Your task to perform on an android device: Open Android settings Image 0: 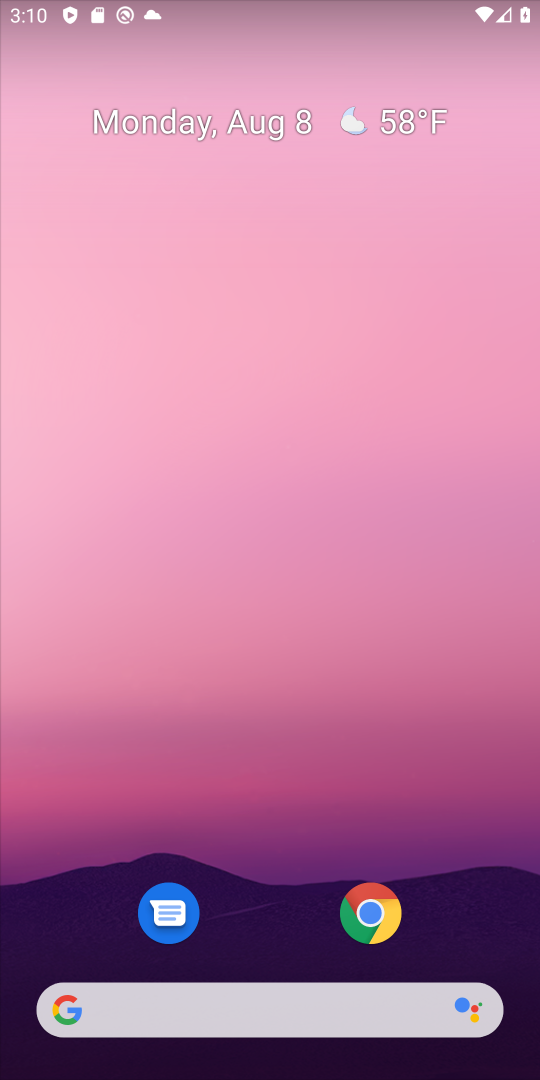
Step 0: press home button
Your task to perform on an android device: Open Android settings Image 1: 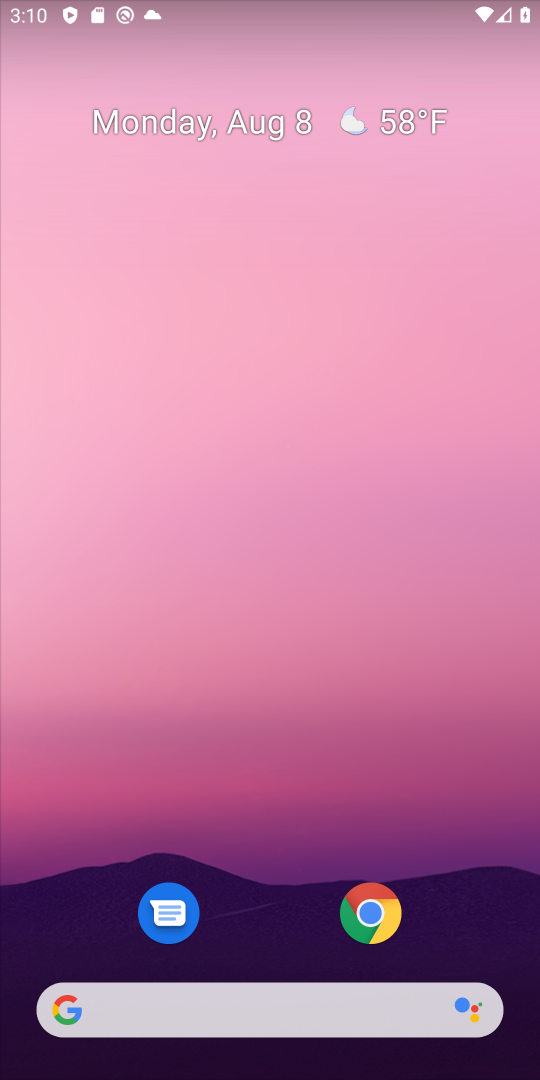
Step 1: drag from (277, 805) to (254, 89)
Your task to perform on an android device: Open Android settings Image 2: 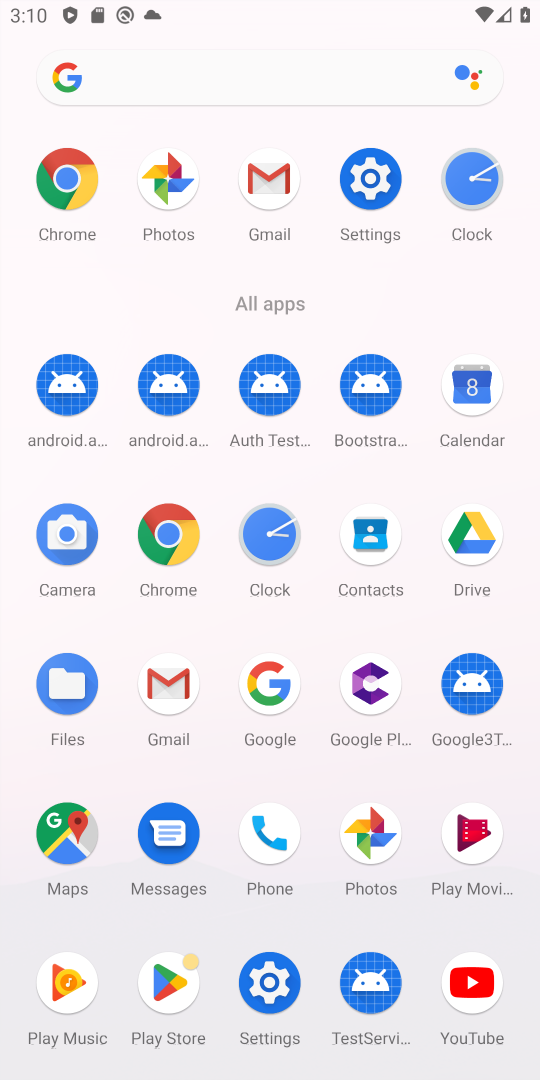
Step 2: click (370, 172)
Your task to perform on an android device: Open Android settings Image 3: 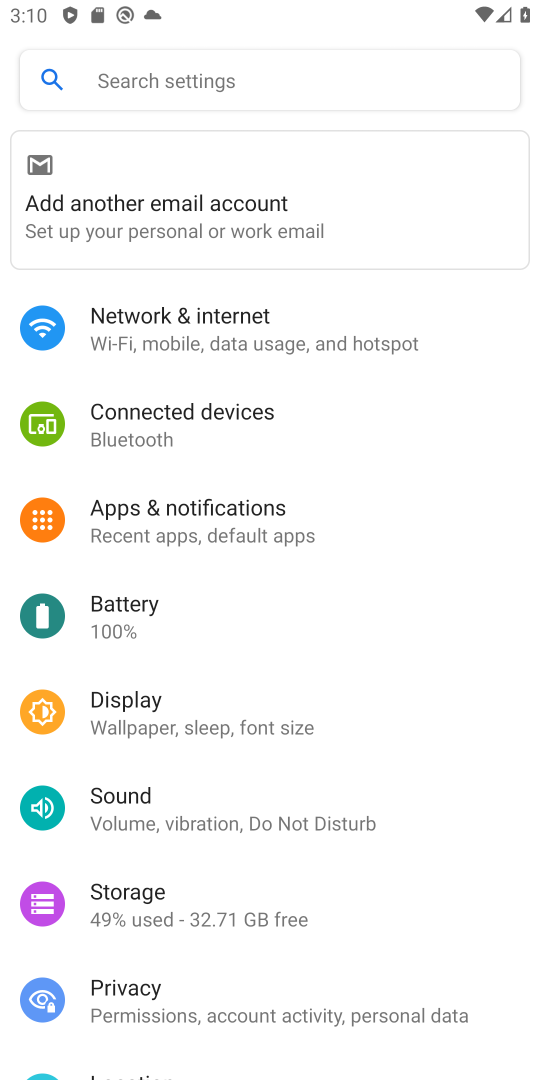
Step 3: drag from (442, 623) to (455, 515)
Your task to perform on an android device: Open Android settings Image 4: 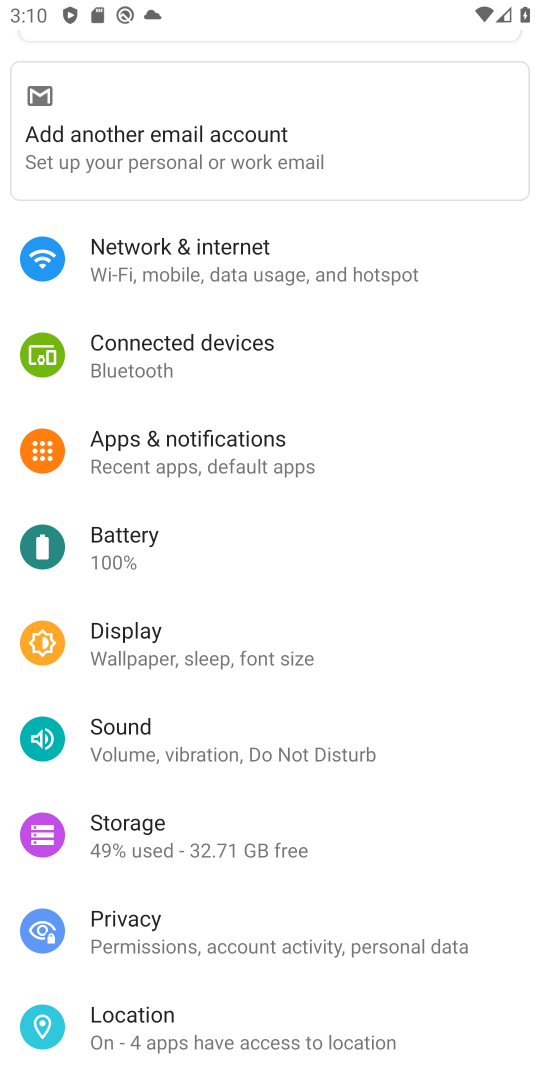
Step 4: drag from (470, 616) to (470, 467)
Your task to perform on an android device: Open Android settings Image 5: 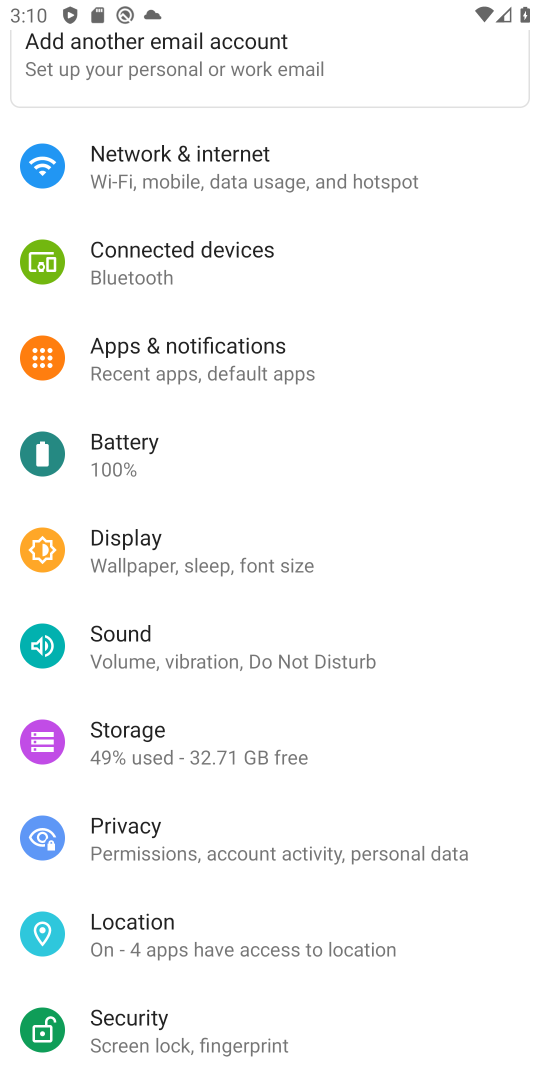
Step 5: drag from (475, 668) to (463, 512)
Your task to perform on an android device: Open Android settings Image 6: 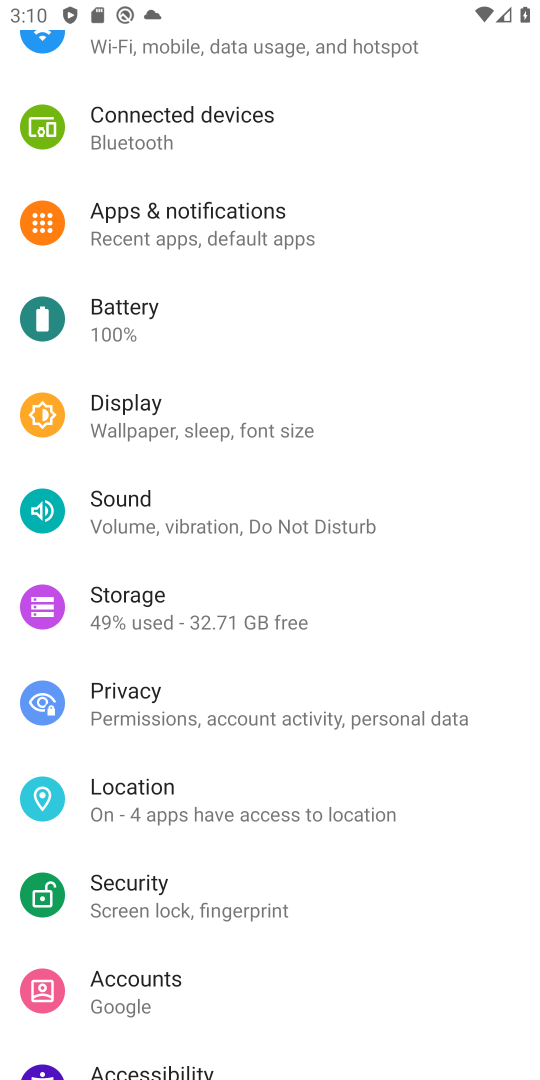
Step 6: drag from (437, 628) to (444, 493)
Your task to perform on an android device: Open Android settings Image 7: 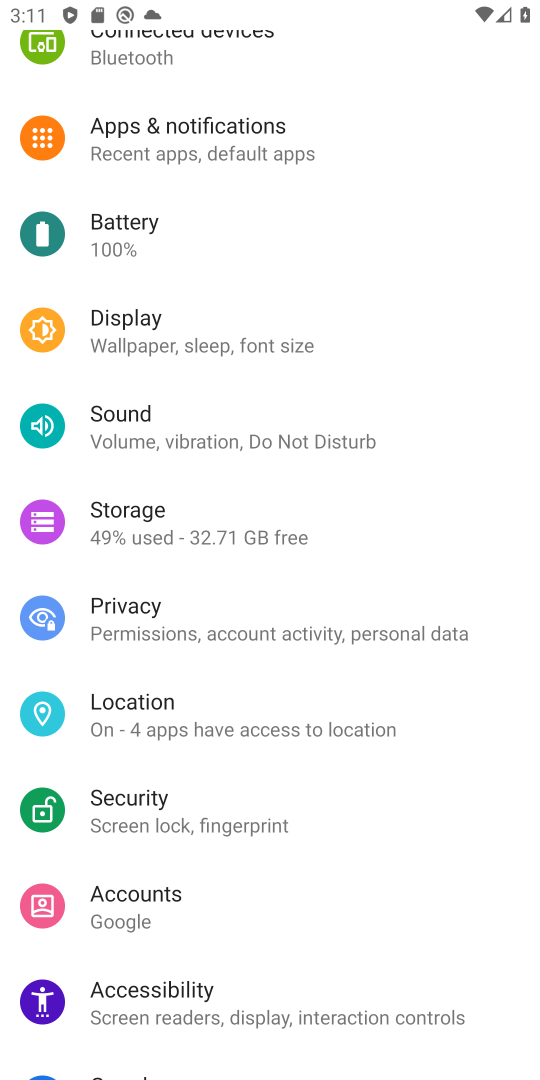
Step 7: drag from (430, 646) to (443, 522)
Your task to perform on an android device: Open Android settings Image 8: 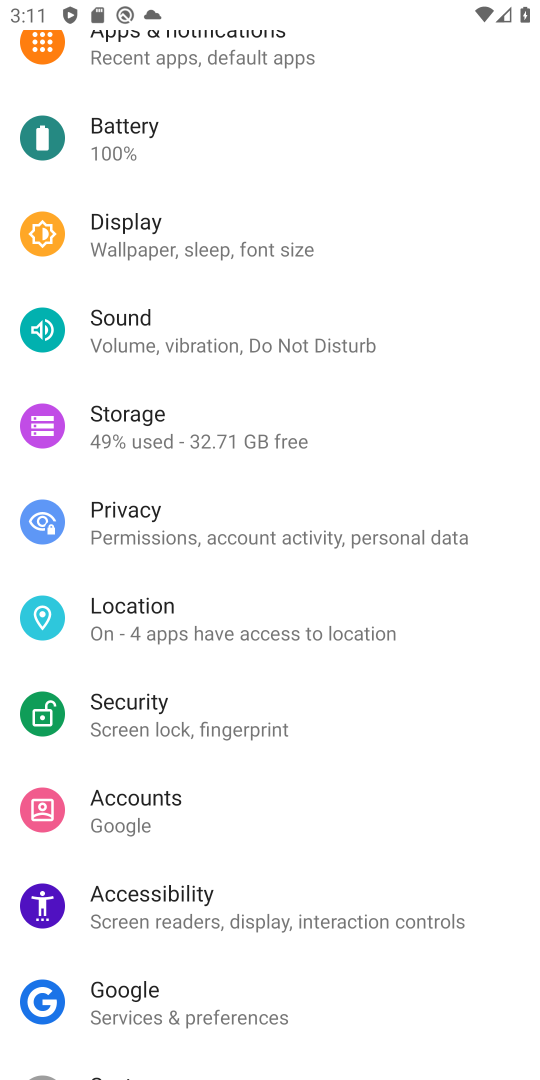
Step 8: drag from (436, 737) to (448, 406)
Your task to perform on an android device: Open Android settings Image 9: 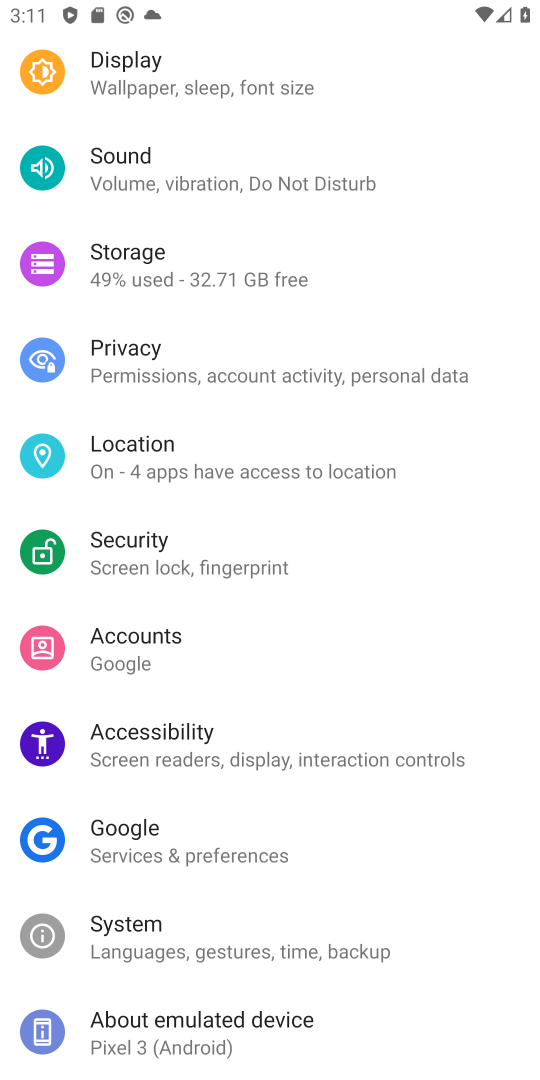
Step 9: drag from (435, 699) to (455, 452)
Your task to perform on an android device: Open Android settings Image 10: 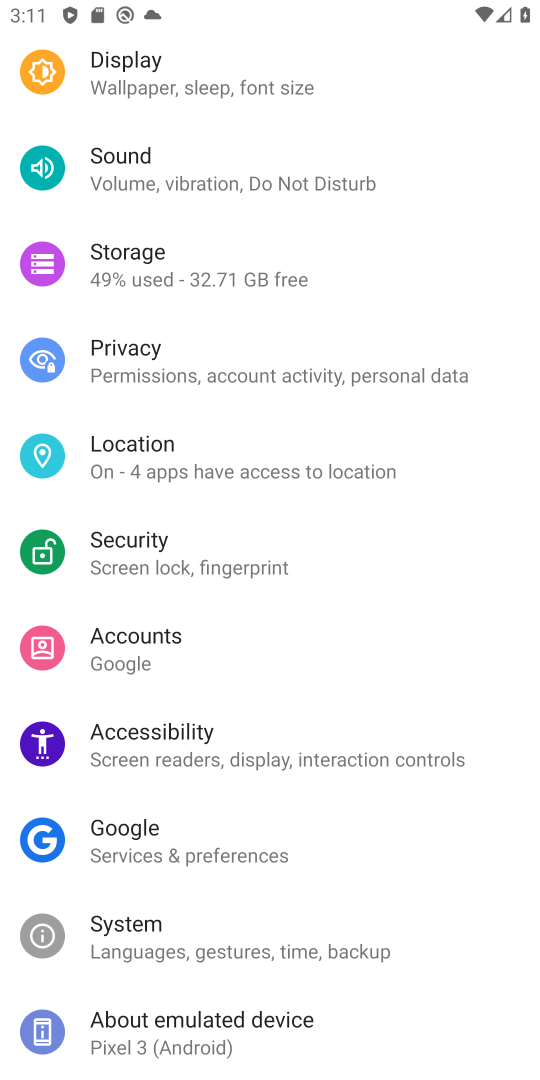
Step 10: click (351, 952)
Your task to perform on an android device: Open Android settings Image 11: 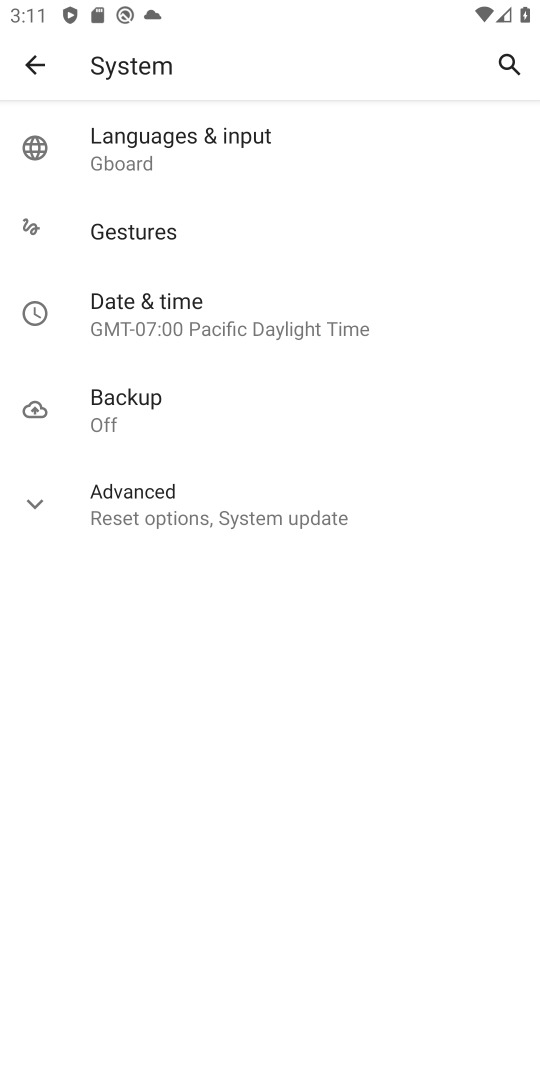
Step 11: click (296, 484)
Your task to perform on an android device: Open Android settings Image 12: 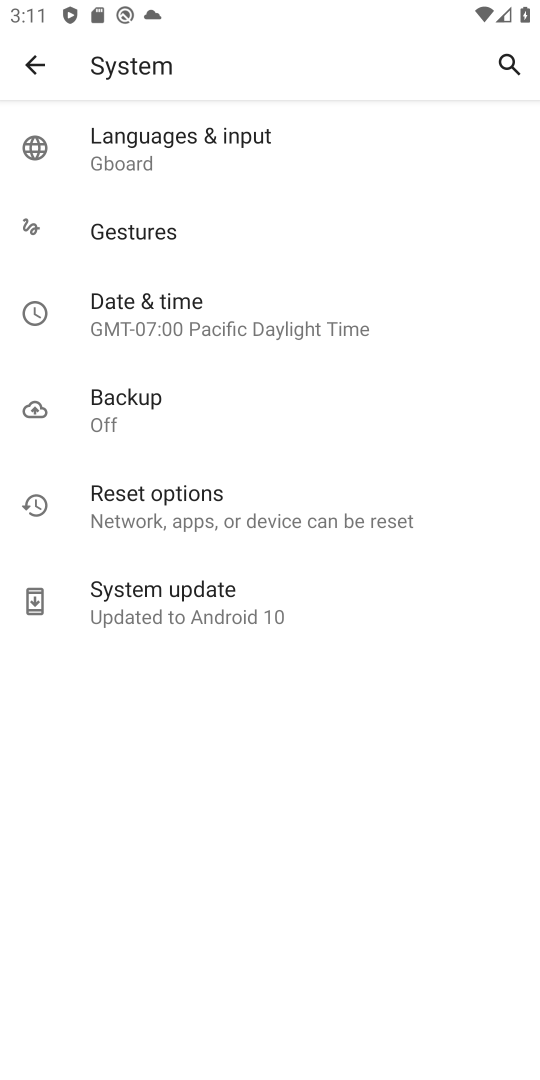
Step 12: task complete